Your task to perform on an android device: Open network settings Image 0: 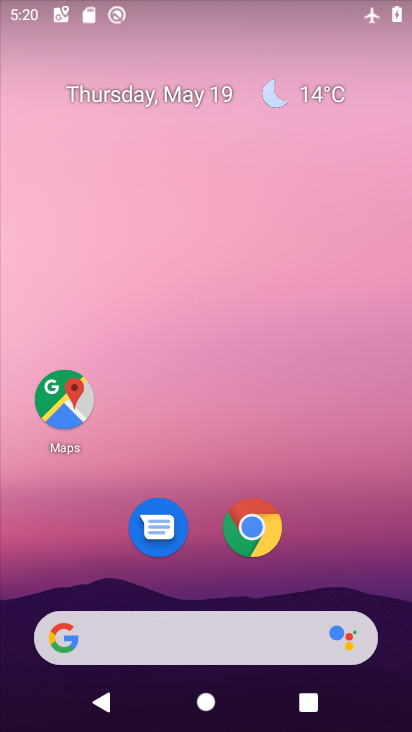
Step 0: drag from (349, 449) to (142, 17)
Your task to perform on an android device: Open network settings Image 1: 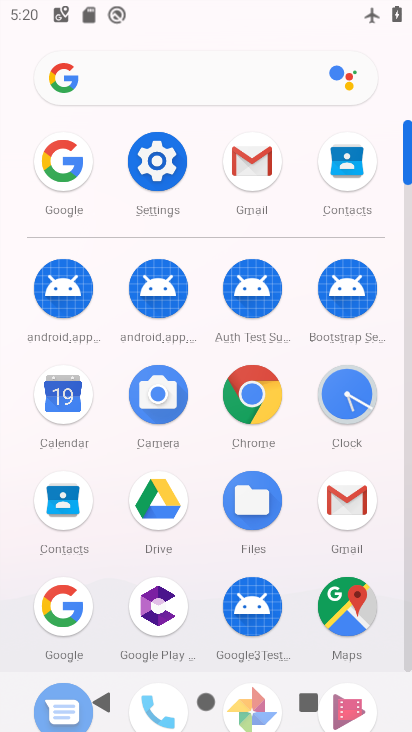
Step 1: click (167, 168)
Your task to perform on an android device: Open network settings Image 2: 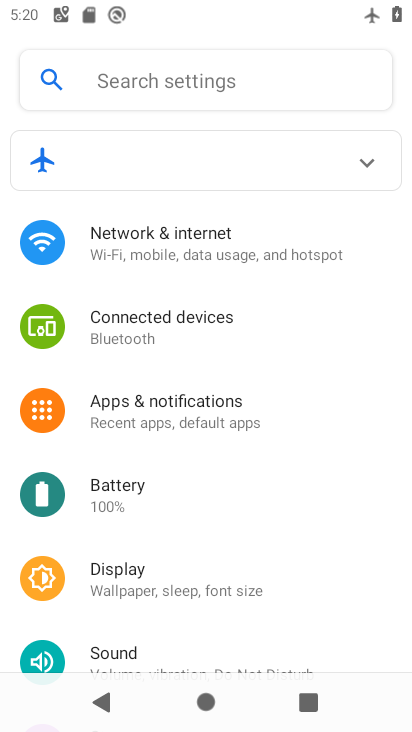
Step 2: click (220, 232)
Your task to perform on an android device: Open network settings Image 3: 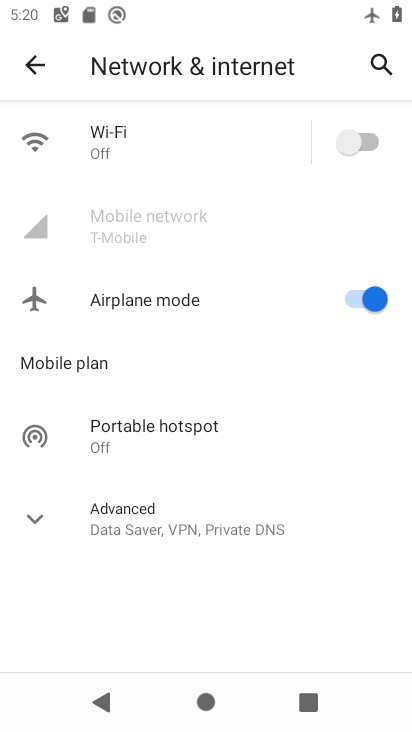
Step 3: task complete